Your task to perform on an android device: Show the shopping cart on ebay.com. Search for panasonic triple a on ebay.com, select the first entry, add it to the cart, then select checkout. Image 0: 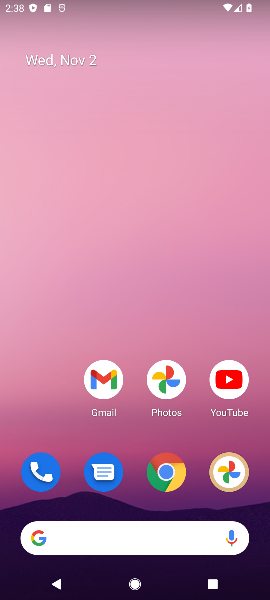
Step 0: click (162, 472)
Your task to perform on an android device: Show the shopping cart on ebay.com. Search for panasonic triple a on ebay.com, select the first entry, add it to the cart, then select checkout. Image 1: 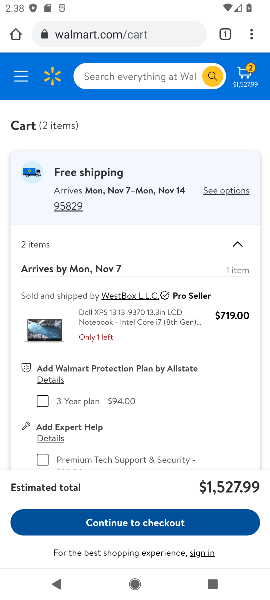
Step 1: click (96, 34)
Your task to perform on an android device: Show the shopping cart on ebay.com. Search for panasonic triple a on ebay.com, select the first entry, add it to the cart, then select checkout. Image 2: 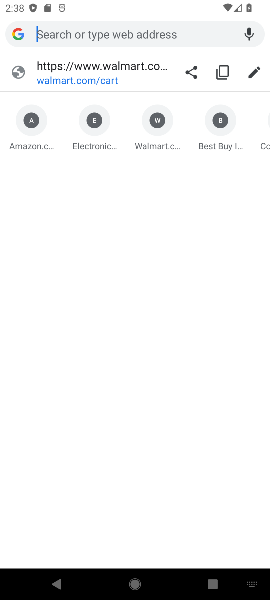
Step 2: type "ebay.com"
Your task to perform on an android device: Show the shopping cart on ebay.com. Search for panasonic triple a on ebay.com, select the first entry, add it to the cart, then select checkout. Image 3: 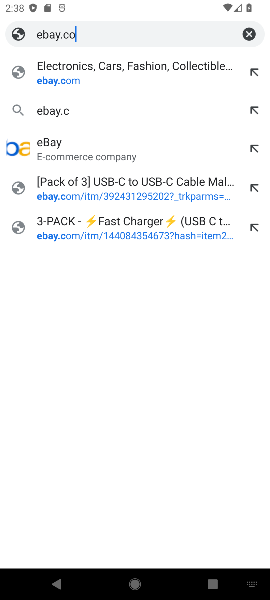
Step 3: type ""
Your task to perform on an android device: Show the shopping cart on ebay.com. Search for panasonic triple a on ebay.com, select the first entry, add it to the cart, then select checkout. Image 4: 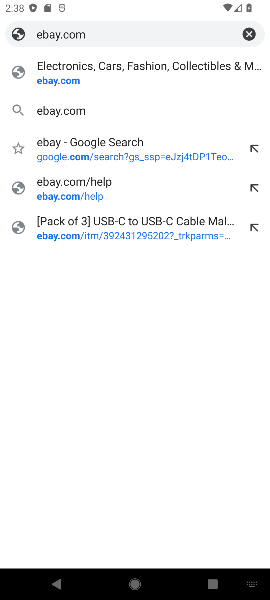
Step 4: click (109, 76)
Your task to perform on an android device: Show the shopping cart on ebay.com. Search for panasonic triple a on ebay.com, select the first entry, add it to the cart, then select checkout. Image 5: 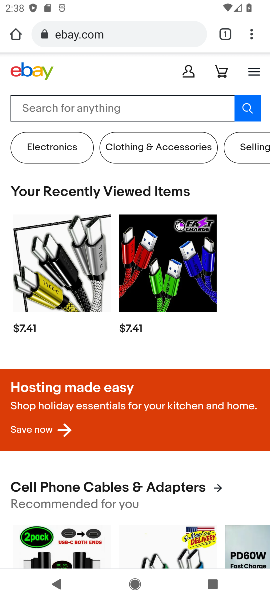
Step 5: click (74, 113)
Your task to perform on an android device: Show the shopping cart on ebay.com. Search for panasonic triple a on ebay.com, select the first entry, add it to the cart, then select checkout. Image 6: 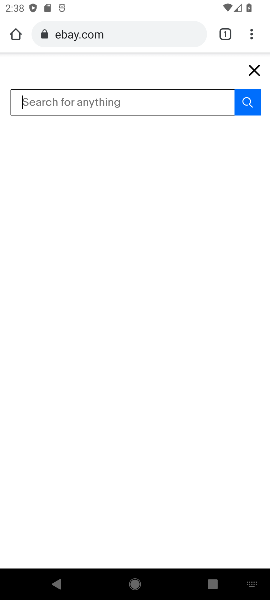
Step 6: type "panasonic triple a"
Your task to perform on an android device: Show the shopping cart on ebay.com. Search for panasonic triple a on ebay.com, select the first entry, add it to the cart, then select checkout. Image 7: 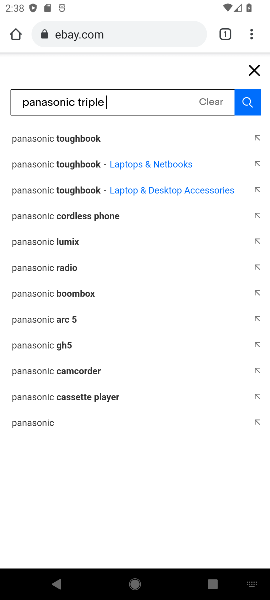
Step 7: type ""
Your task to perform on an android device: Show the shopping cart on ebay.com. Search for panasonic triple a on ebay.com, select the first entry, add it to the cart, then select checkout. Image 8: 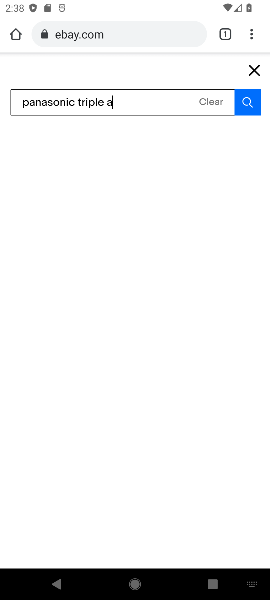
Step 8: press enter
Your task to perform on an android device: Show the shopping cart on ebay.com. Search for panasonic triple a on ebay.com, select the first entry, add it to the cart, then select checkout. Image 9: 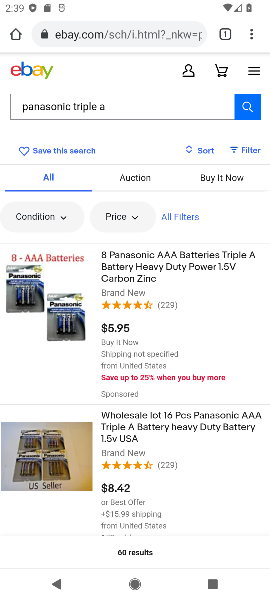
Step 9: click (158, 277)
Your task to perform on an android device: Show the shopping cart on ebay.com. Search for panasonic triple a on ebay.com, select the first entry, add it to the cart, then select checkout. Image 10: 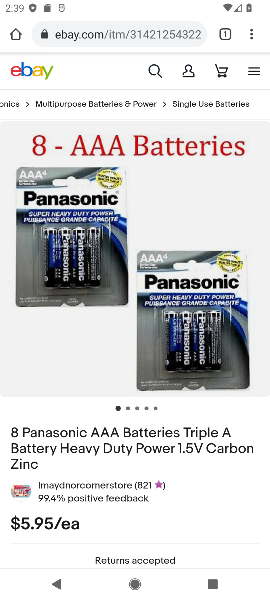
Step 10: drag from (172, 467) to (211, 204)
Your task to perform on an android device: Show the shopping cart on ebay.com. Search for panasonic triple a on ebay.com, select the first entry, add it to the cart, then select checkout. Image 11: 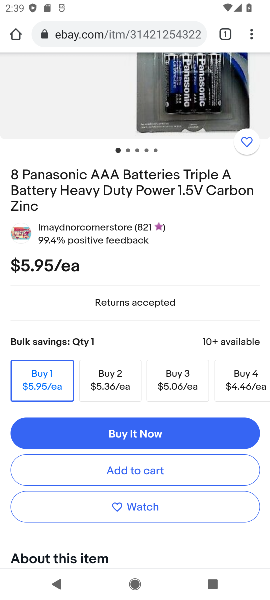
Step 11: click (182, 467)
Your task to perform on an android device: Show the shopping cart on ebay.com. Search for panasonic triple a on ebay.com, select the first entry, add it to the cart, then select checkout. Image 12: 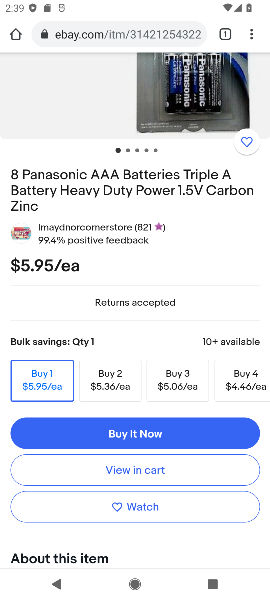
Step 12: click (182, 467)
Your task to perform on an android device: Show the shopping cart on ebay.com. Search for panasonic triple a on ebay.com, select the first entry, add it to the cart, then select checkout. Image 13: 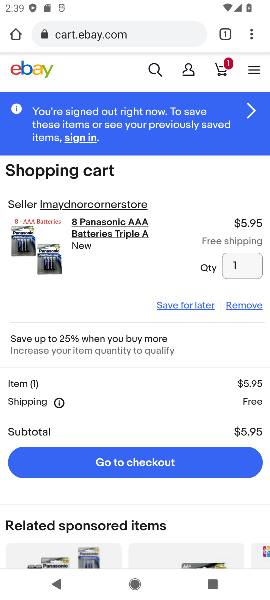
Step 13: click (182, 467)
Your task to perform on an android device: Show the shopping cart on ebay.com. Search for panasonic triple a on ebay.com, select the first entry, add it to the cart, then select checkout. Image 14: 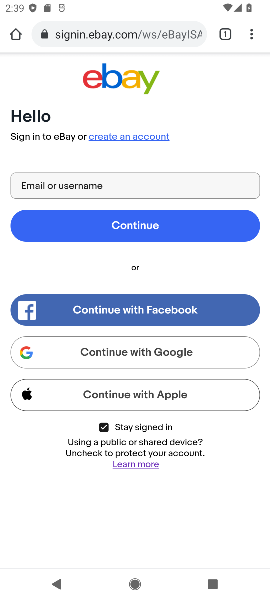
Step 14: task complete